Your task to perform on an android device: Open my contact list Image 0: 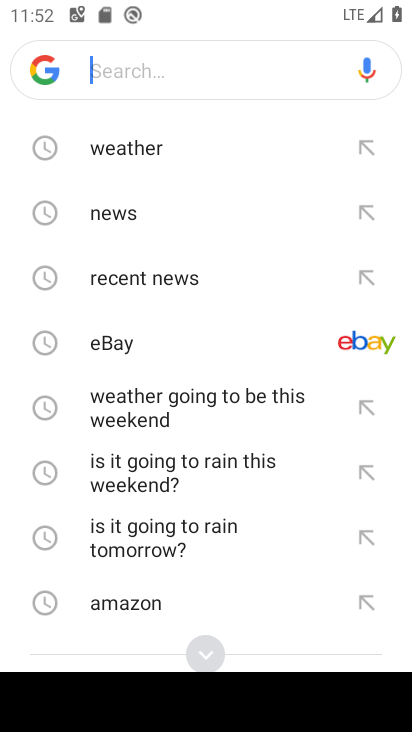
Step 0: press back button
Your task to perform on an android device: Open my contact list Image 1: 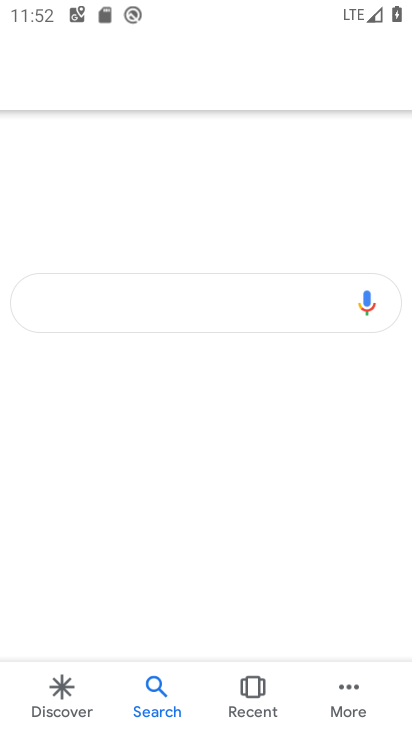
Step 1: press home button
Your task to perform on an android device: Open my contact list Image 2: 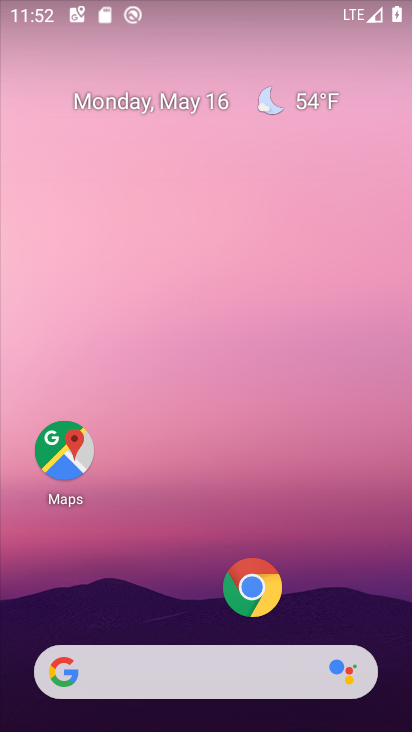
Step 2: drag from (180, 599) to (275, 21)
Your task to perform on an android device: Open my contact list Image 3: 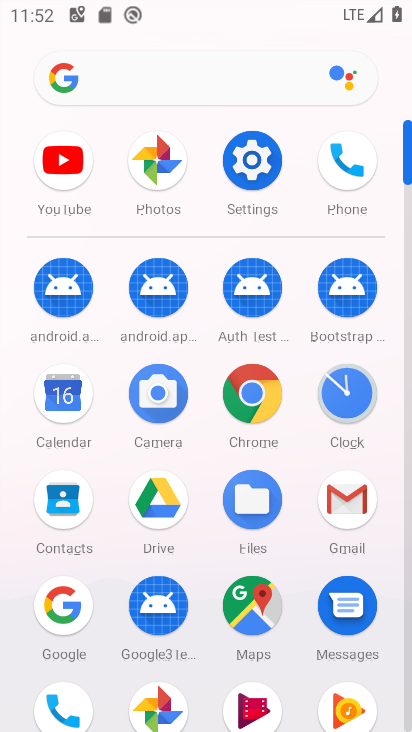
Step 3: click (67, 504)
Your task to perform on an android device: Open my contact list Image 4: 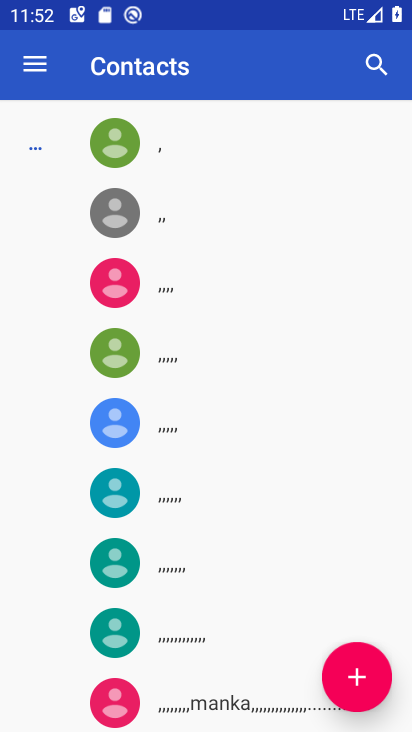
Step 4: task complete